Your task to perform on an android device: turn on airplane mode Image 0: 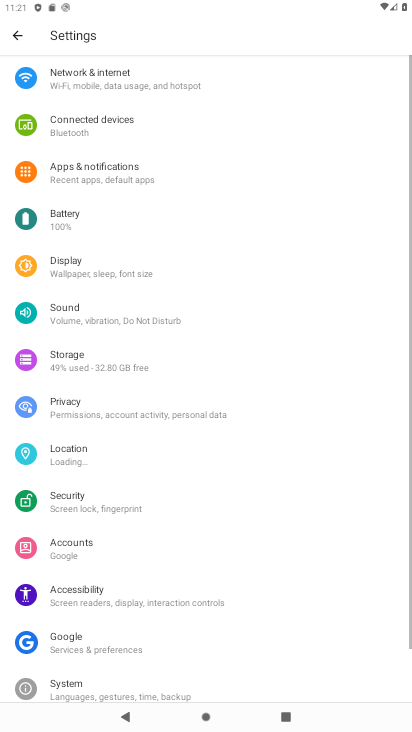
Step 0: click (132, 87)
Your task to perform on an android device: turn on airplane mode Image 1: 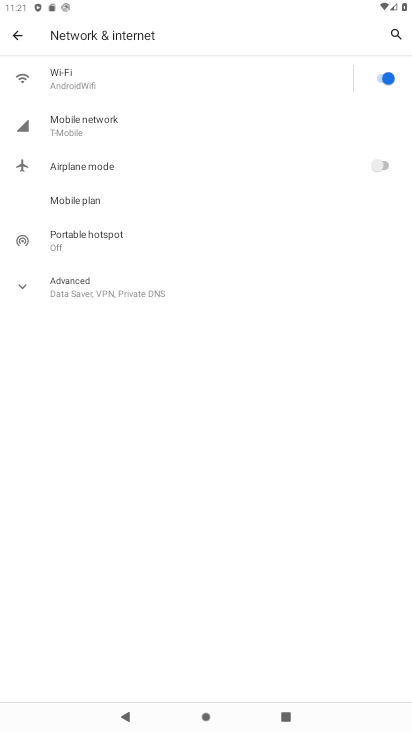
Step 1: click (382, 170)
Your task to perform on an android device: turn on airplane mode Image 2: 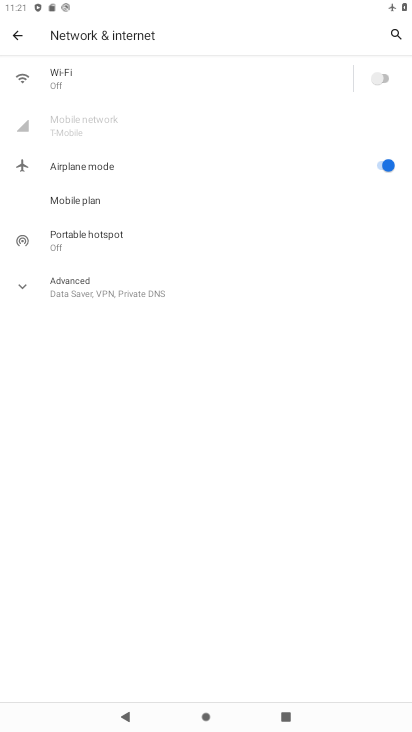
Step 2: task complete